Your task to perform on an android device: set the stopwatch Image 0: 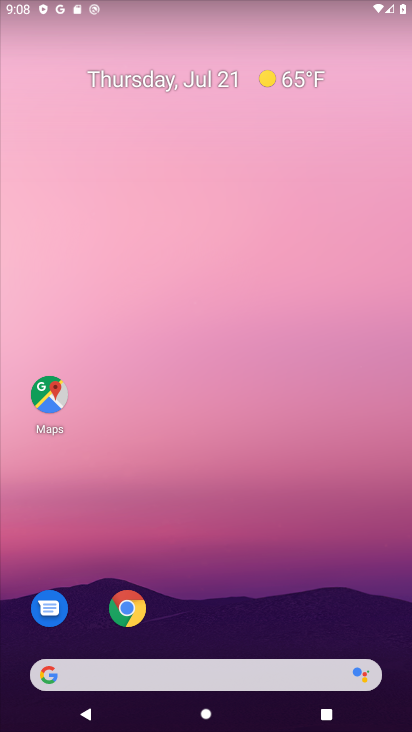
Step 0: drag from (262, 496) to (303, 48)
Your task to perform on an android device: set the stopwatch Image 1: 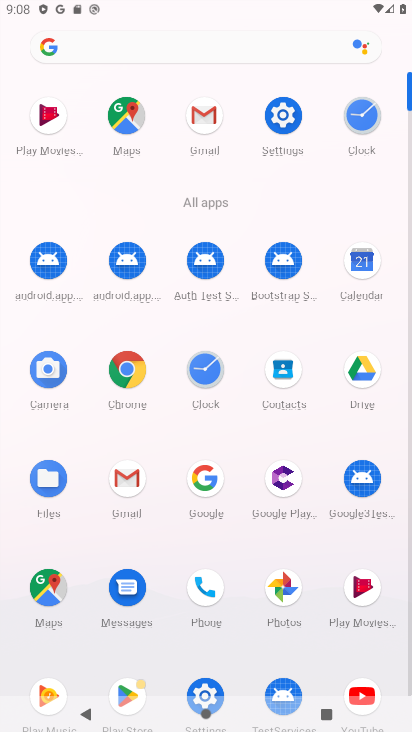
Step 1: click (362, 114)
Your task to perform on an android device: set the stopwatch Image 2: 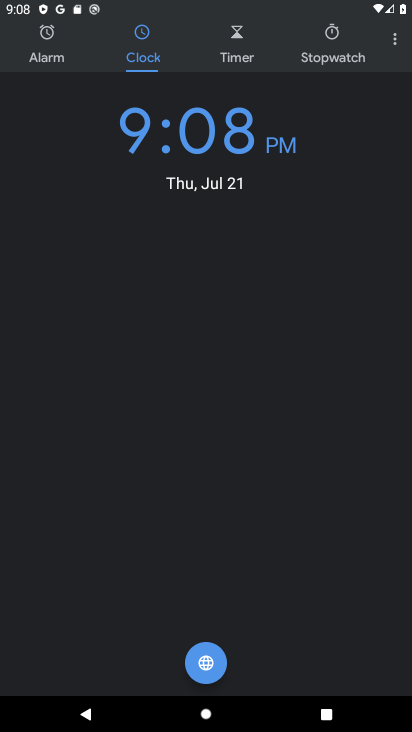
Step 2: click (327, 35)
Your task to perform on an android device: set the stopwatch Image 3: 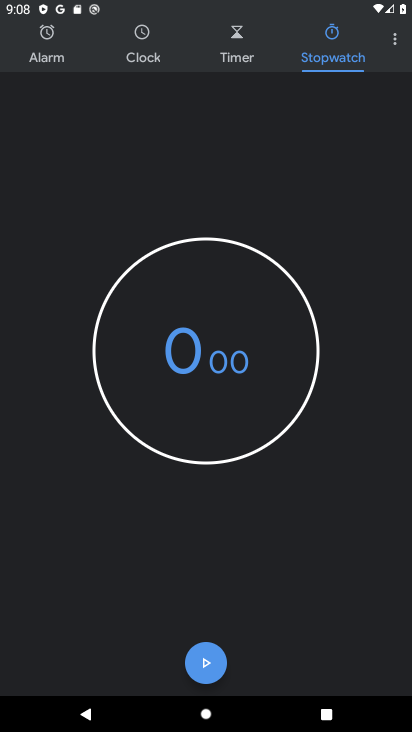
Step 3: task complete